Your task to perform on an android device: open app "Google Play Music" Image 0: 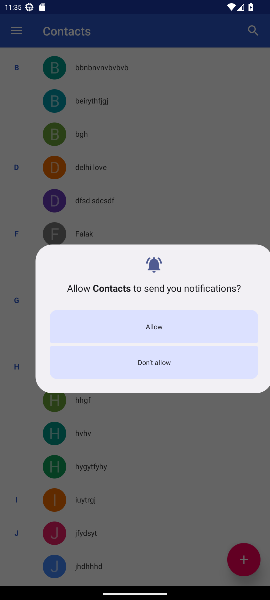
Step 0: press home button
Your task to perform on an android device: open app "Google Play Music" Image 1: 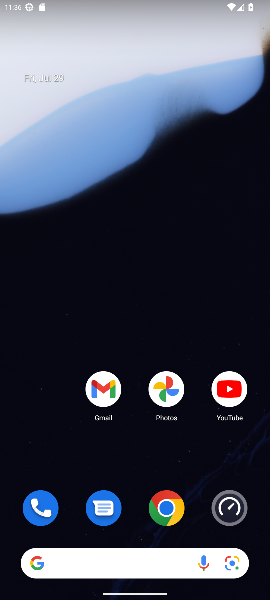
Step 1: drag from (111, 550) to (106, 78)
Your task to perform on an android device: open app "Google Play Music" Image 2: 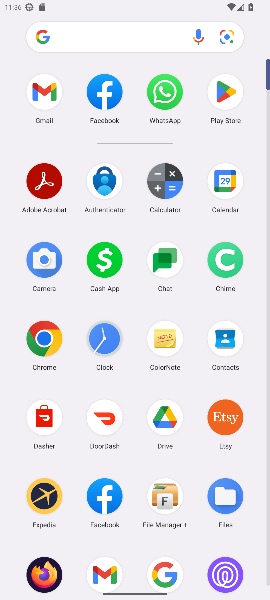
Step 2: click (228, 92)
Your task to perform on an android device: open app "Google Play Music" Image 3: 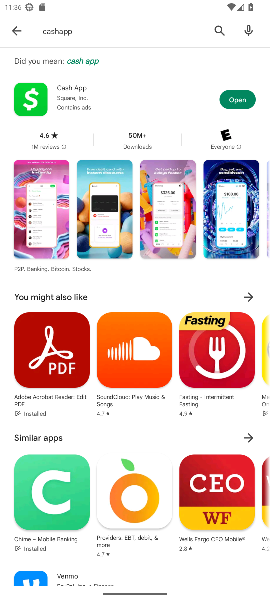
Step 3: click (213, 25)
Your task to perform on an android device: open app "Google Play Music" Image 4: 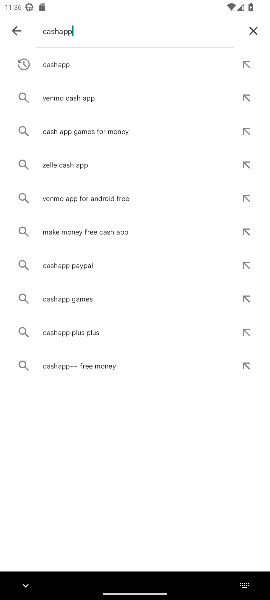
Step 4: click (257, 29)
Your task to perform on an android device: open app "Google Play Music" Image 5: 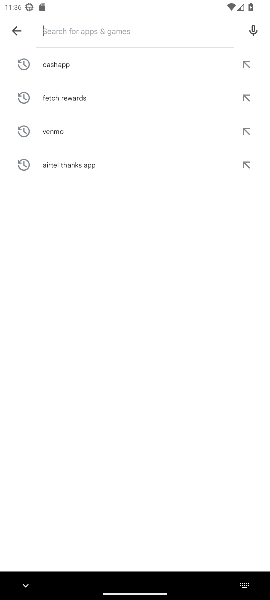
Step 5: type "Google pay music"
Your task to perform on an android device: open app "Google Play Music" Image 6: 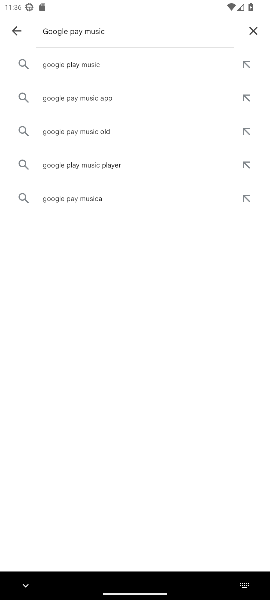
Step 6: click (90, 58)
Your task to perform on an android device: open app "Google Play Music" Image 7: 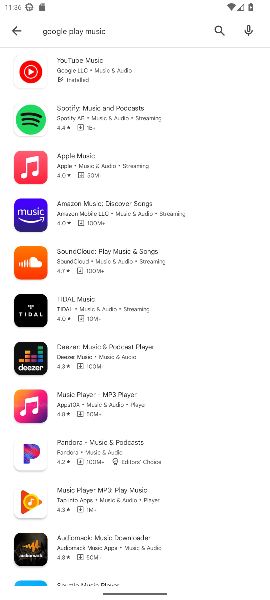
Step 7: click (92, 62)
Your task to perform on an android device: open app "Google Play Music" Image 8: 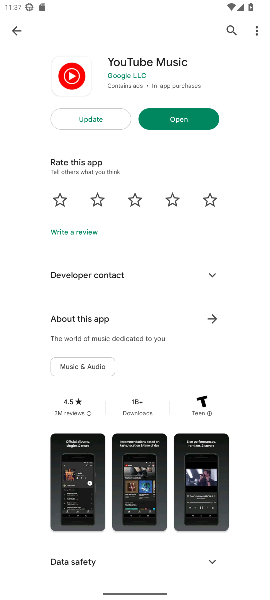
Step 8: task complete